Your task to perform on an android device: Show me popular games on the Play Store Image 0: 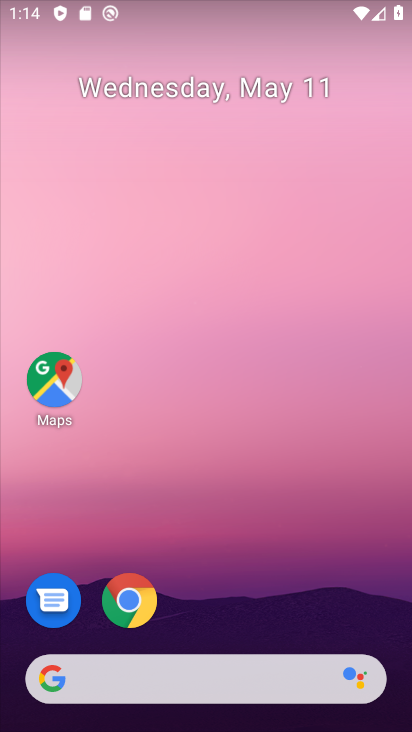
Step 0: drag from (250, 498) to (256, 284)
Your task to perform on an android device: Show me popular games on the Play Store Image 1: 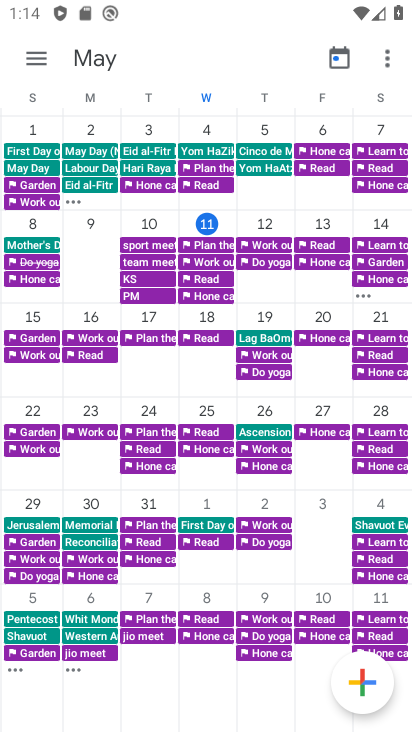
Step 1: press home button
Your task to perform on an android device: Show me popular games on the Play Store Image 2: 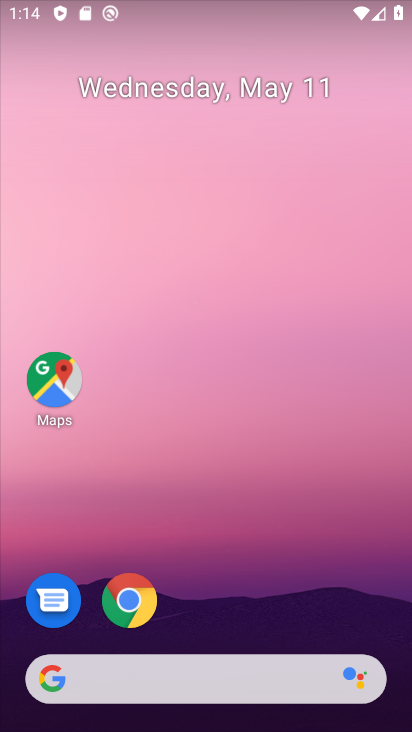
Step 2: drag from (288, 629) to (279, 234)
Your task to perform on an android device: Show me popular games on the Play Store Image 3: 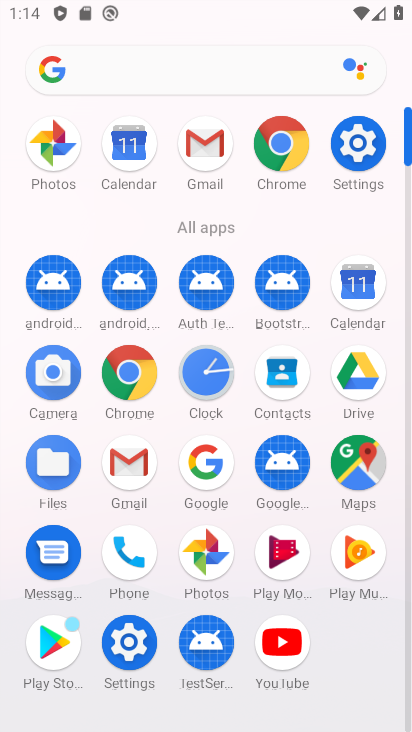
Step 3: click (60, 639)
Your task to perform on an android device: Show me popular games on the Play Store Image 4: 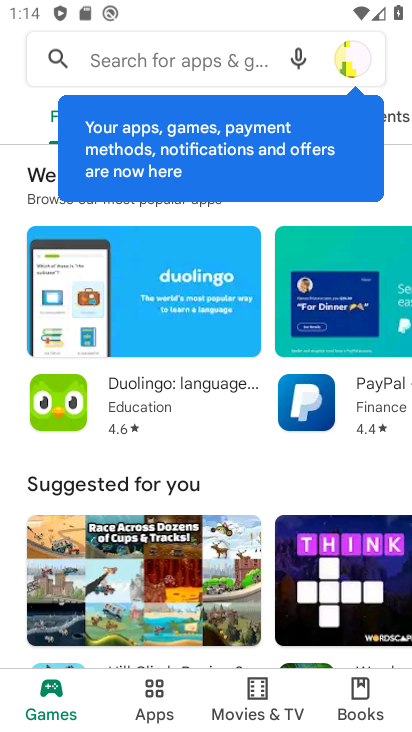
Step 4: click (66, 698)
Your task to perform on an android device: Show me popular games on the Play Store Image 5: 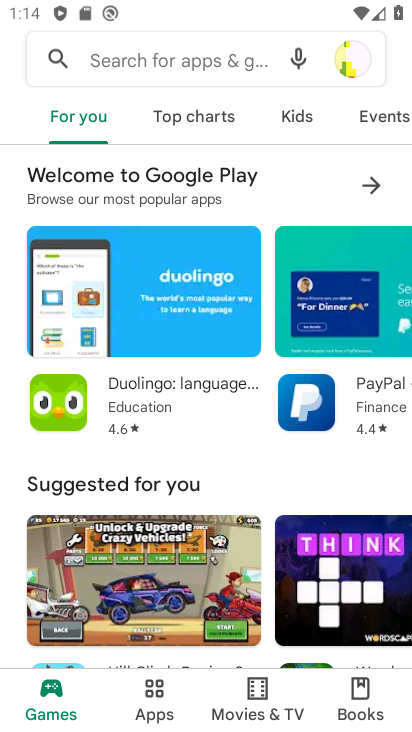
Step 5: click (147, 689)
Your task to perform on an android device: Show me popular games on the Play Store Image 6: 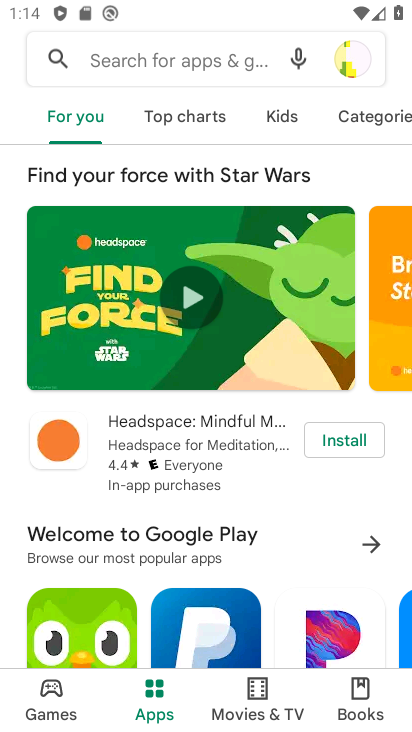
Step 6: click (45, 699)
Your task to perform on an android device: Show me popular games on the Play Store Image 7: 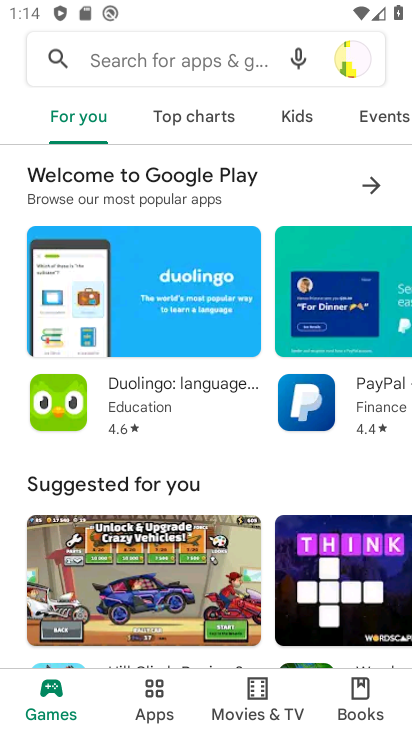
Step 7: task complete